Your task to perform on an android device: Open Yahoo.com Image 0: 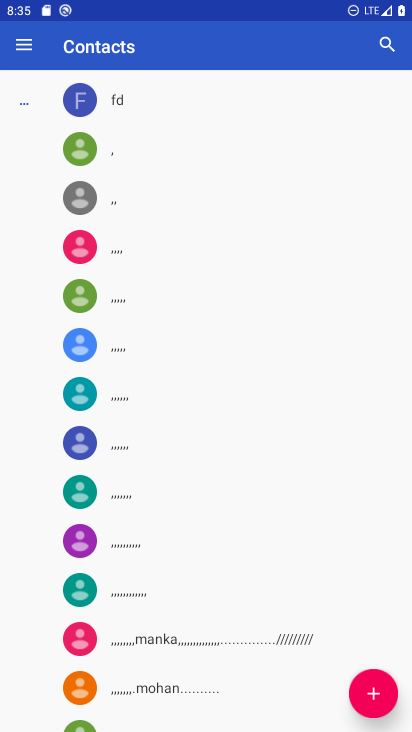
Step 0: press home button
Your task to perform on an android device: Open Yahoo.com Image 1: 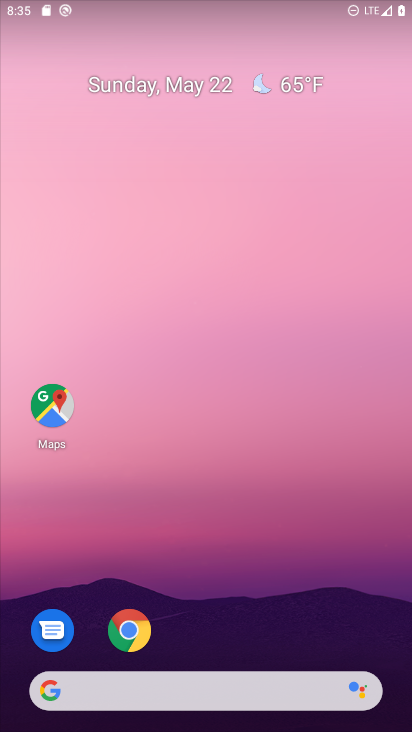
Step 1: drag from (180, 689) to (395, 124)
Your task to perform on an android device: Open Yahoo.com Image 2: 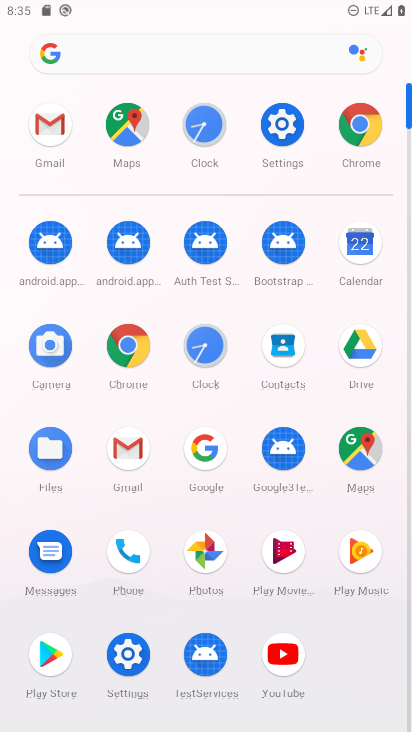
Step 2: click (364, 125)
Your task to perform on an android device: Open Yahoo.com Image 3: 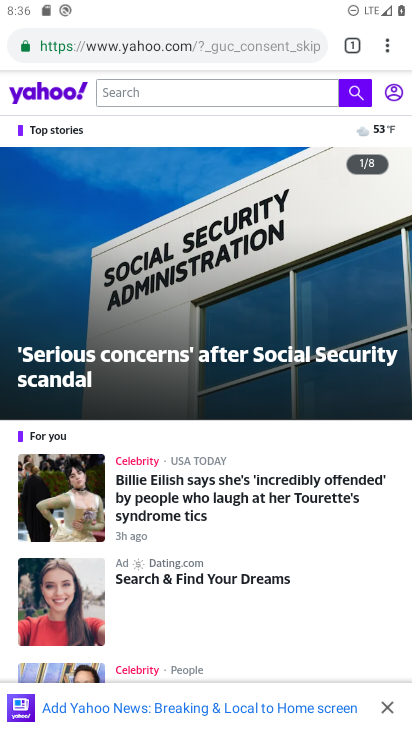
Step 3: task complete